Your task to perform on an android device: turn notification dots on Image 0: 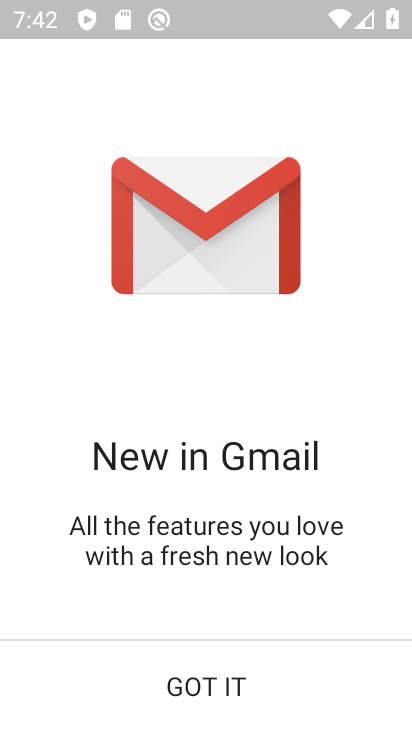
Step 0: click (231, 676)
Your task to perform on an android device: turn notification dots on Image 1: 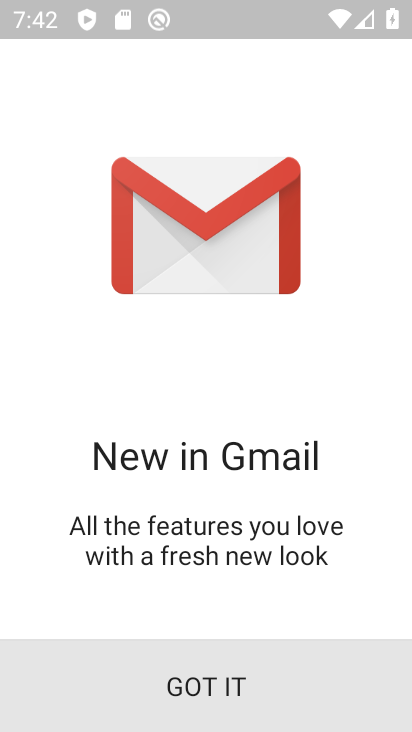
Step 1: click (223, 690)
Your task to perform on an android device: turn notification dots on Image 2: 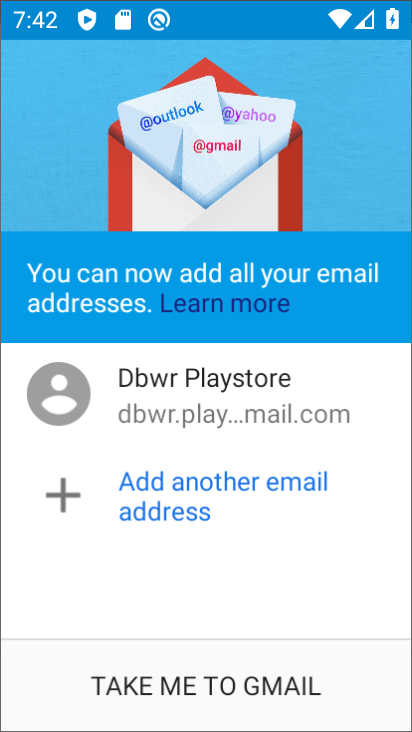
Step 2: click (217, 689)
Your task to perform on an android device: turn notification dots on Image 3: 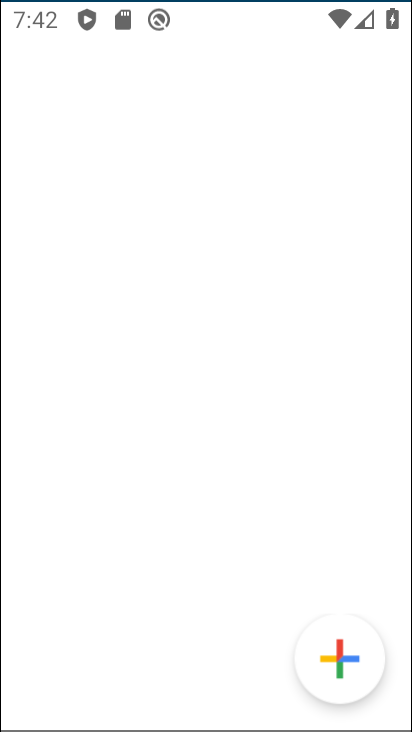
Step 3: click (217, 689)
Your task to perform on an android device: turn notification dots on Image 4: 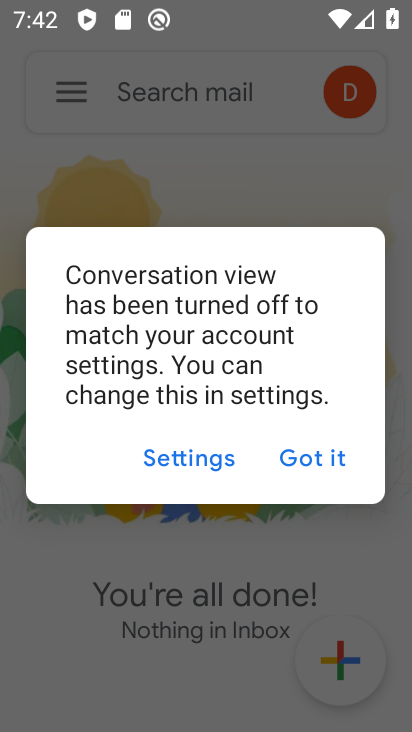
Step 4: click (296, 464)
Your task to perform on an android device: turn notification dots on Image 5: 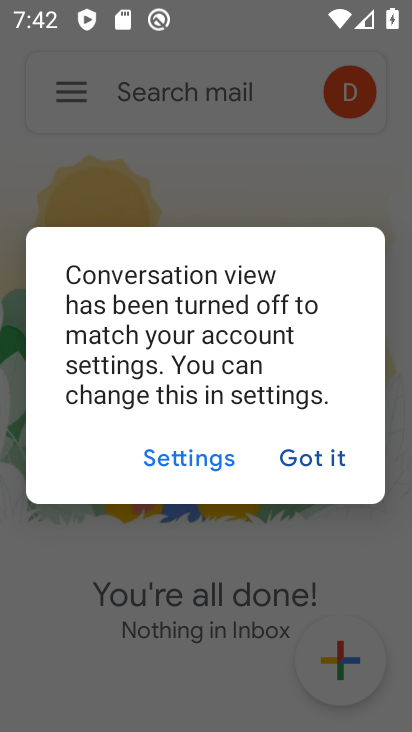
Step 5: click (298, 462)
Your task to perform on an android device: turn notification dots on Image 6: 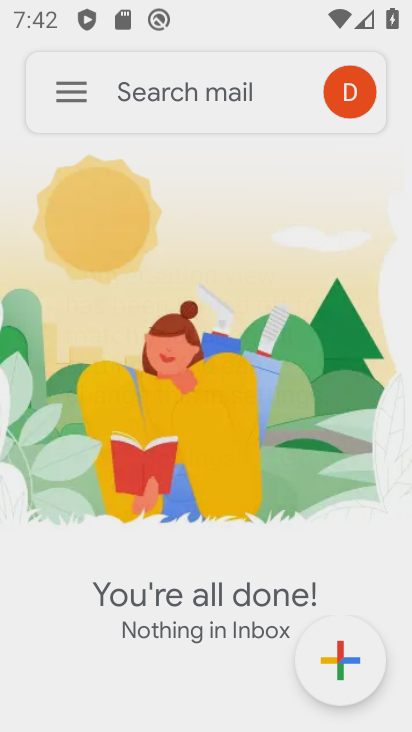
Step 6: click (298, 462)
Your task to perform on an android device: turn notification dots on Image 7: 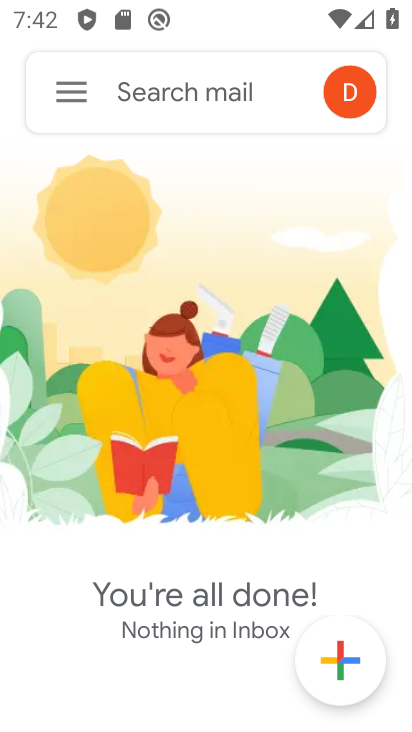
Step 7: drag from (190, 619) to (168, 231)
Your task to perform on an android device: turn notification dots on Image 8: 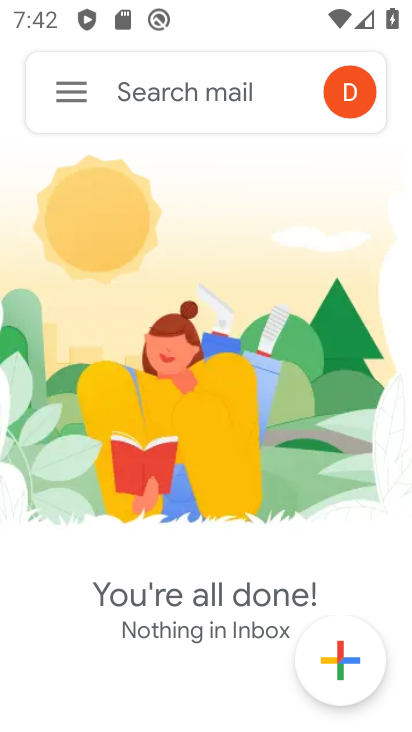
Step 8: press home button
Your task to perform on an android device: turn notification dots on Image 9: 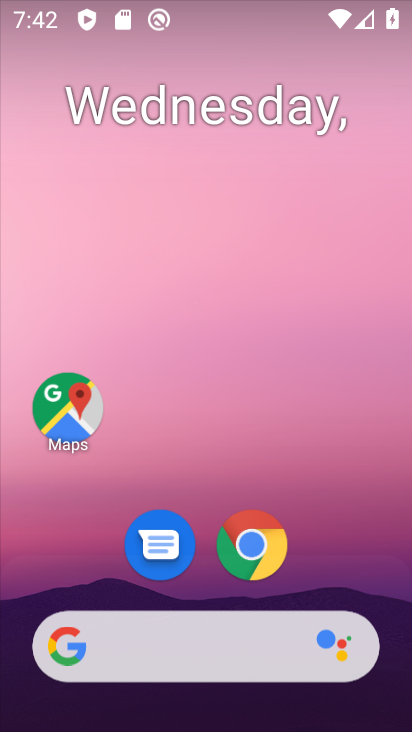
Step 9: drag from (248, 667) to (256, 176)
Your task to perform on an android device: turn notification dots on Image 10: 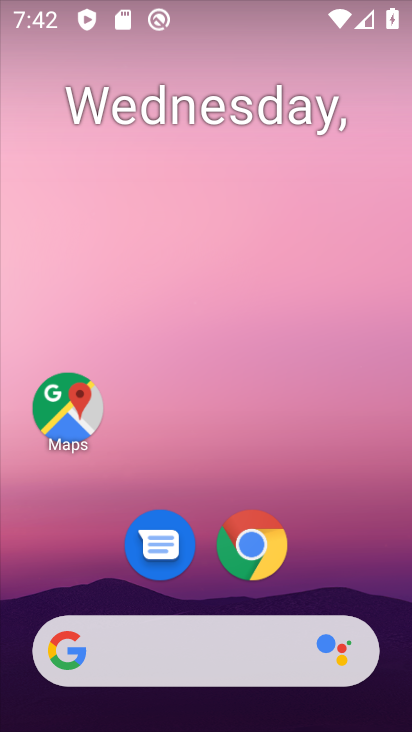
Step 10: drag from (334, 605) to (404, 214)
Your task to perform on an android device: turn notification dots on Image 11: 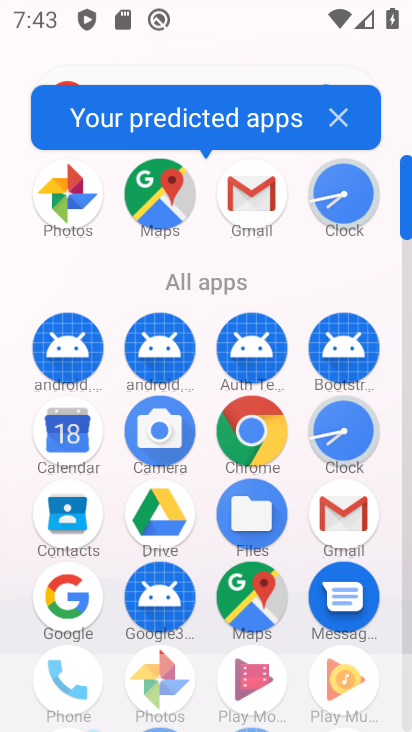
Step 11: drag from (307, 572) to (240, 185)
Your task to perform on an android device: turn notification dots on Image 12: 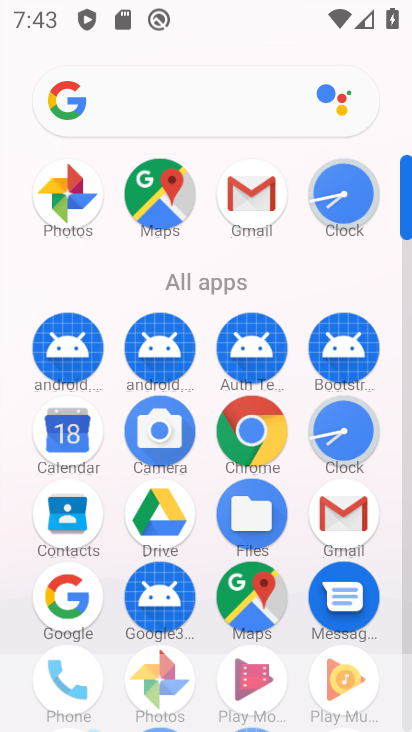
Step 12: drag from (210, 499) to (208, 119)
Your task to perform on an android device: turn notification dots on Image 13: 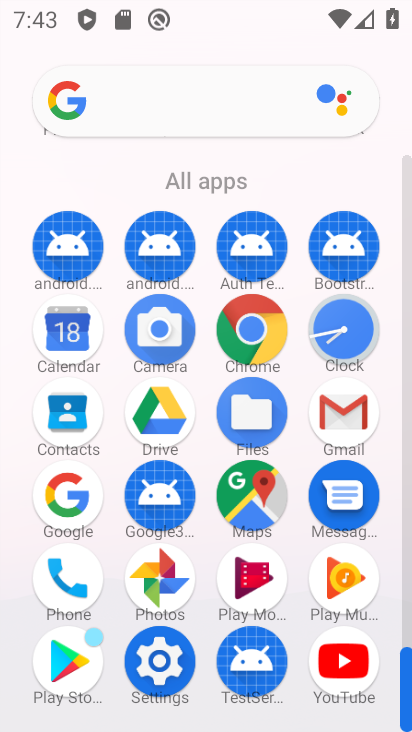
Step 13: drag from (141, 351) to (157, 136)
Your task to perform on an android device: turn notification dots on Image 14: 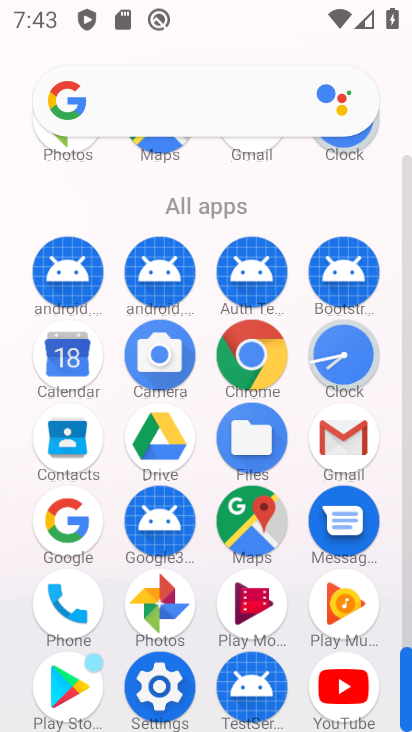
Step 14: click (164, 685)
Your task to perform on an android device: turn notification dots on Image 15: 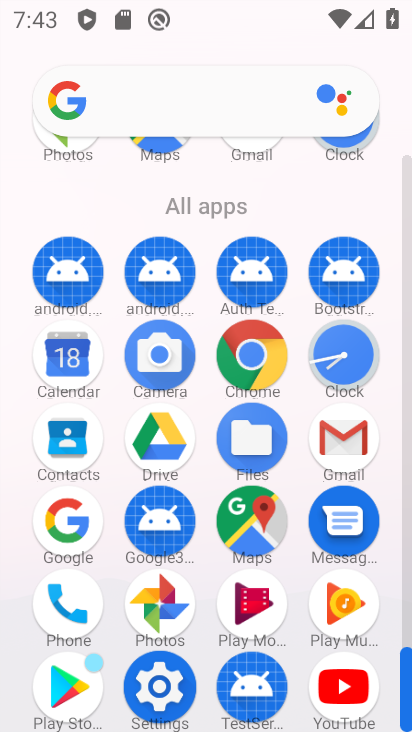
Step 15: click (170, 676)
Your task to perform on an android device: turn notification dots on Image 16: 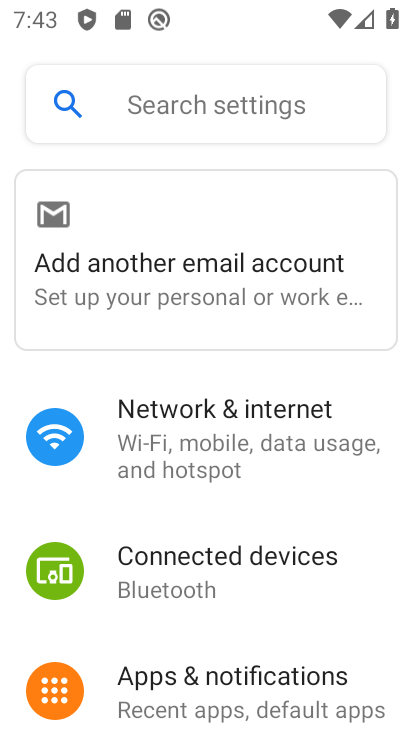
Step 16: click (180, 687)
Your task to perform on an android device: turn notification dots on Image 17: 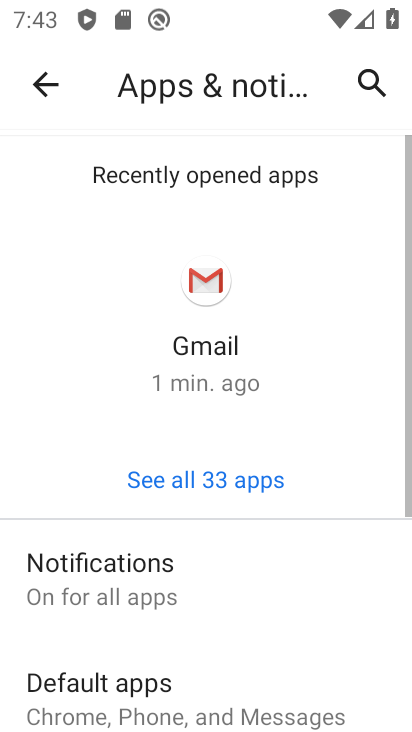
Step 17: click (90, 574)
Your task to perform on an android device: turn notification dots on Image 18: 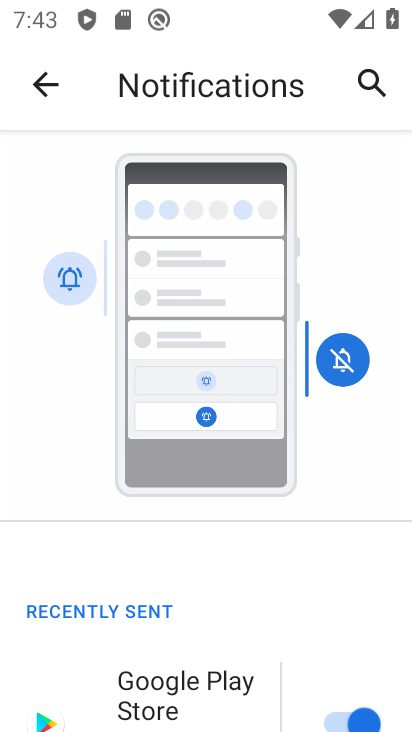
Step 18: drag from (189, 629) to (72, 169)
Your task to perform on an android device: turn notification dots on Image 19: 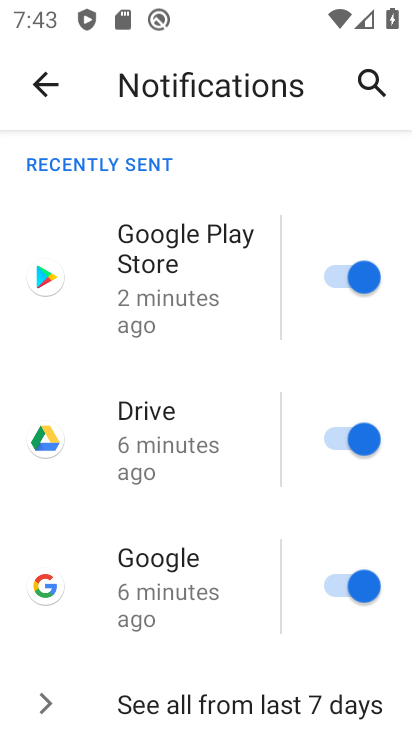
Step 19: drag from (209, 482) to (142, 138)
Your task to perform on an android device: turn notification dots on Image 20: 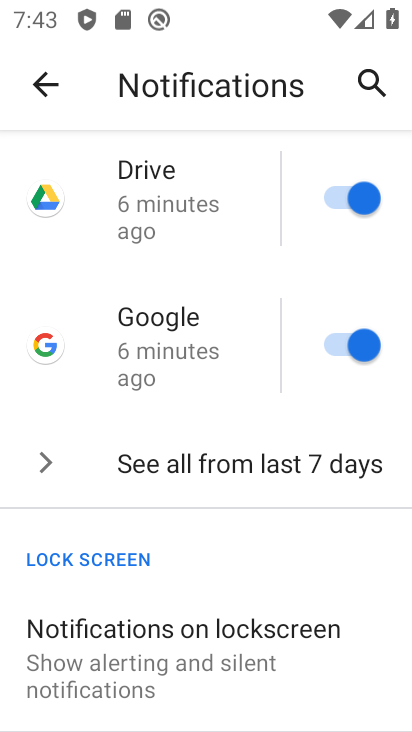
Step 20: drag from (154, 651) to (95, 132)
Your task to perform on an android device: turn notification dots on Image 21: 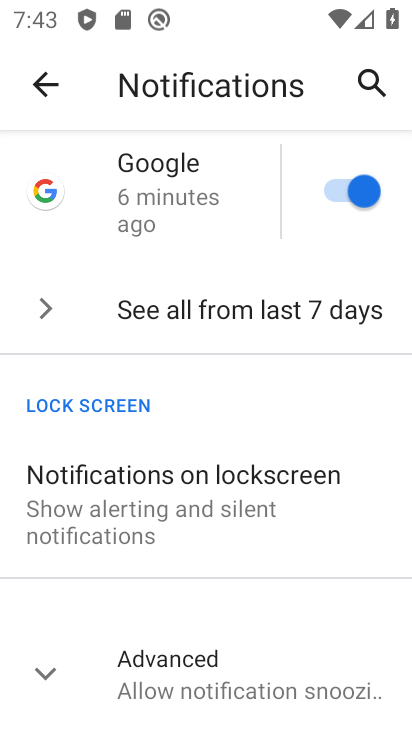
Step 21: click (191, 664)
Your task to perform on an android device: turn notification dots on Image 22: 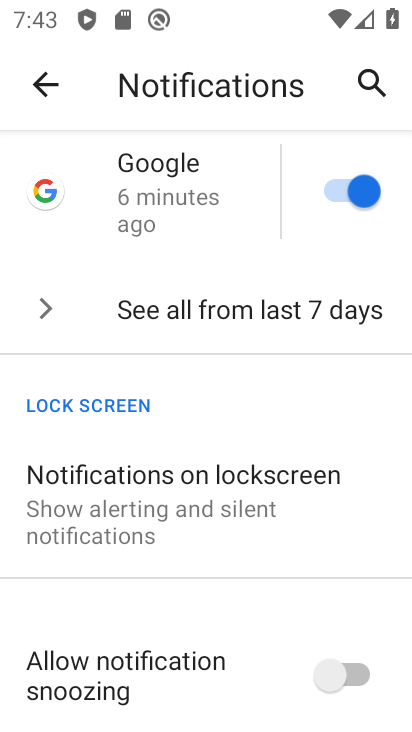
Step 22: drag from (198, 680) to (114, 89)
Your task to perform on an android device: turn notification dots on Image 23: 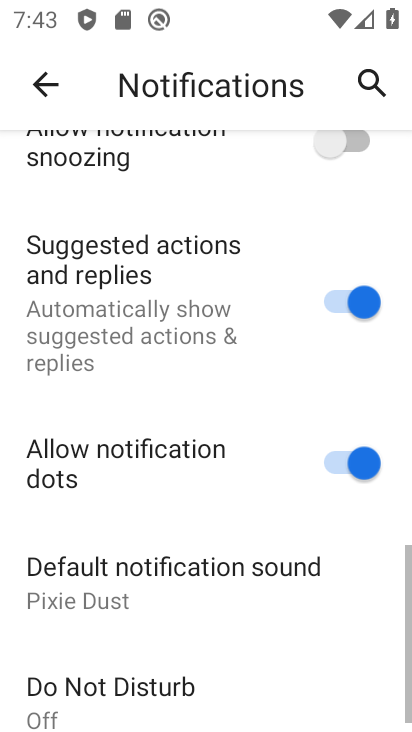
Step 23: drag from (175, 694) to (111, 115)
Your task to perform on an android device: turn notification dots on Image 24: 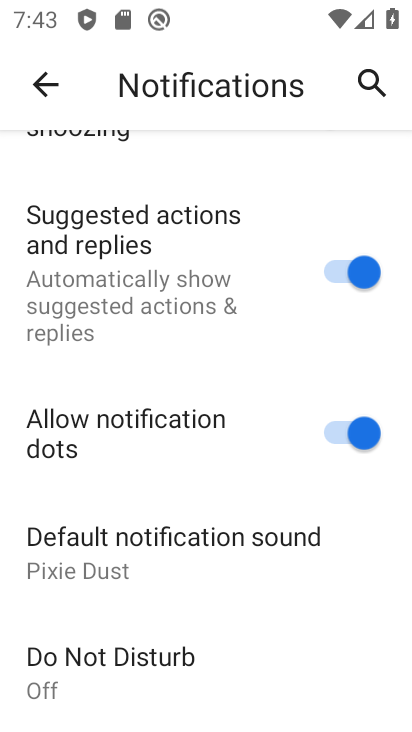
Step 24: click (364, 431)
Your task to perform on an android device: turn notification dots on Image 25: 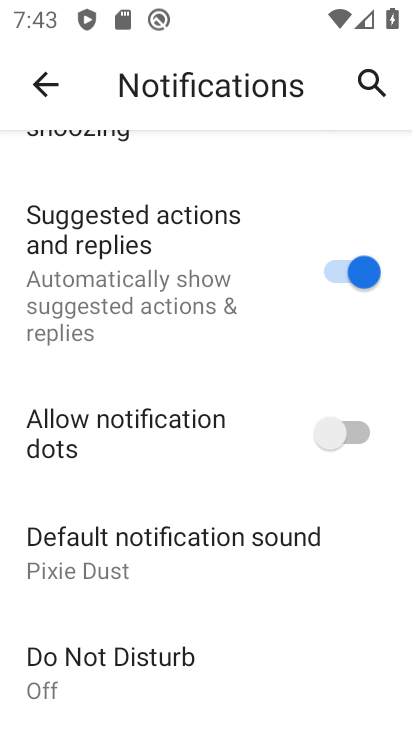
Step 25: click (336, 426)
Your task to perform on an android device: turn notification dots on Image 26: 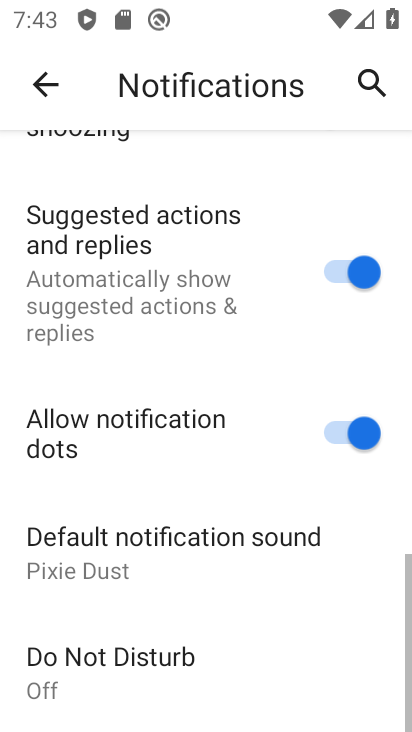
Step 26: task complete